Your task to perform on an android device: open the mobile data screen to see how much data has been used Image 0: 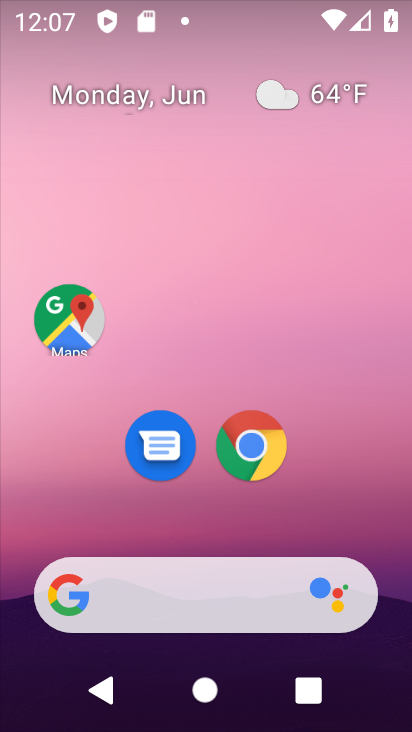
Step 0: drag from (239, 585) to (158, 4)
Your task to perform on an android device: open the mobile data screen to see how much data has been used Image 1: 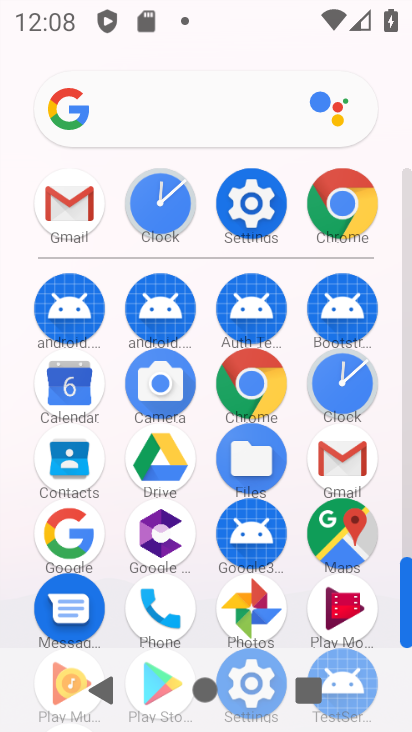
Step 1: click (267, 198)
Your task to perform on an android device: open the mobile data screen to see how much data has been used Image 2: 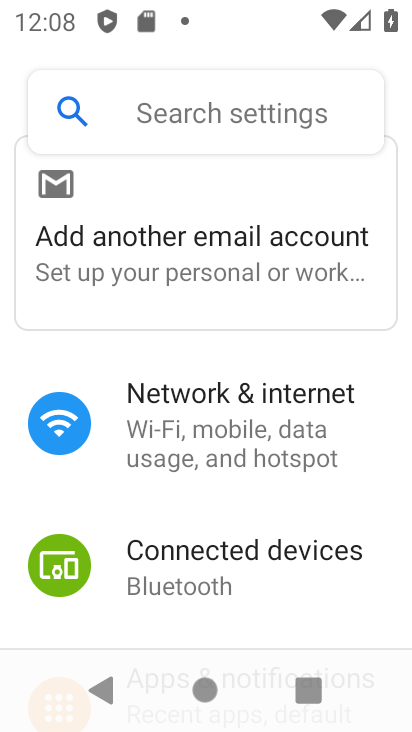
Step 2: click (137, 344)
Your task to perform on an android device: open the mobile data screen to see how much data has been used Image 3: 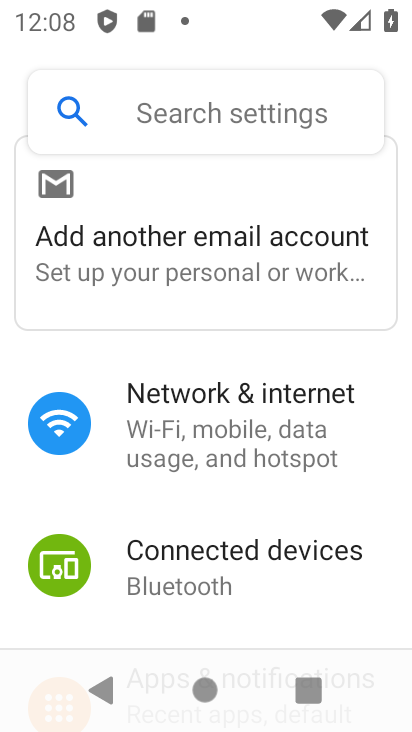
Step 3: click (111, 424)
Your task to perform on an android device: open the mobile data screen to see how much data has been used Image 4: 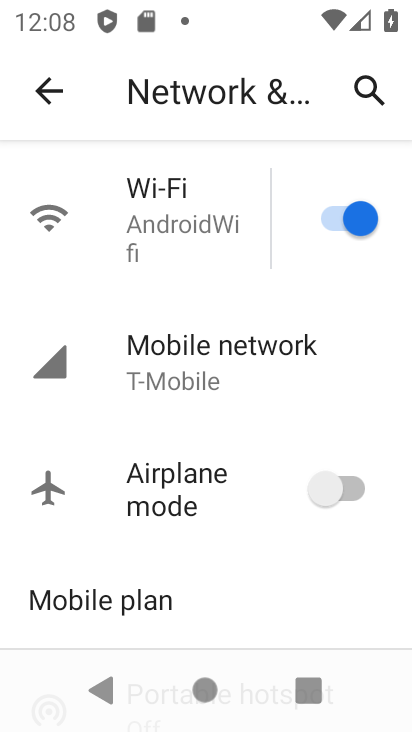
Step 4: drag from (193, 557) to (269, 173)
Your task to perform on an android device: open the mobile data screen to see how much data has been used Image 5: 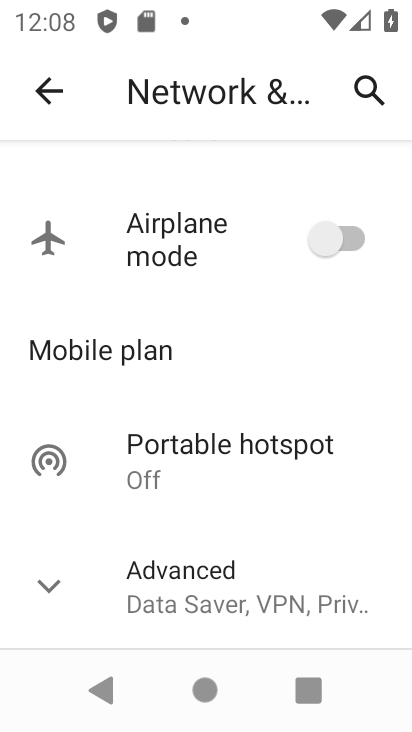
Step 5: drag from (236, 292) to (214, 684)
Your task to perform on an android device: open the mobile data screen to see how much data has been used Image 6: 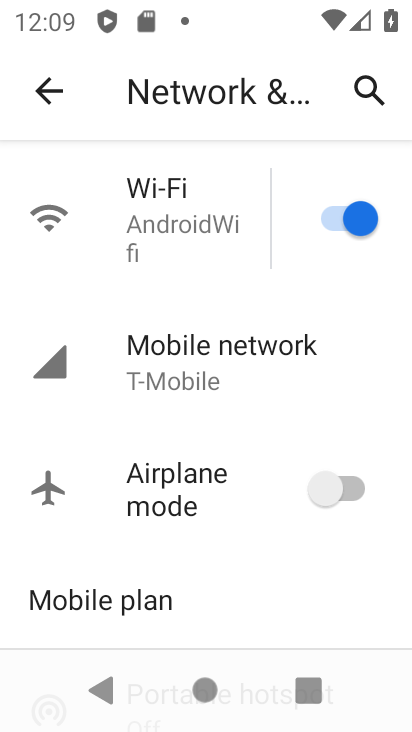
Step 6: click (206, 374)
Your task to perform on an android device: open the mobile data screen to see how much data has been used Image 7: 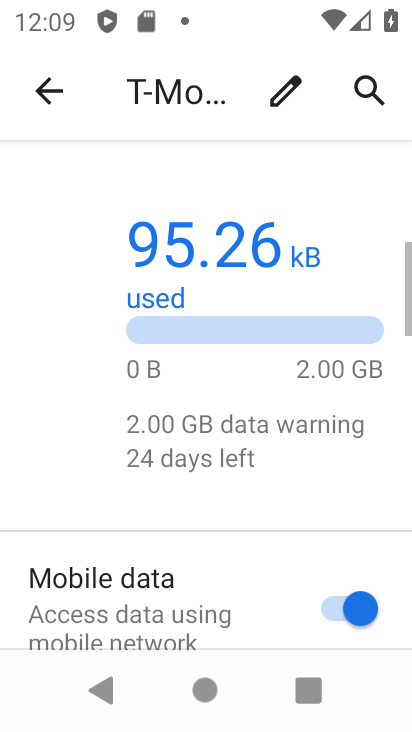
Step 7: task complete